Your task to perform on an android device: check the backup settings in the google photos Image 0: 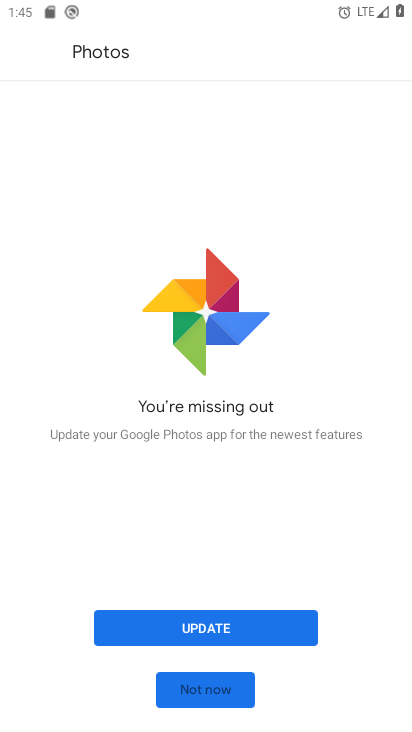
Step 0: click (234, 689)
Your task to perform on an android device: check the backup settings in the google photos Image 1: 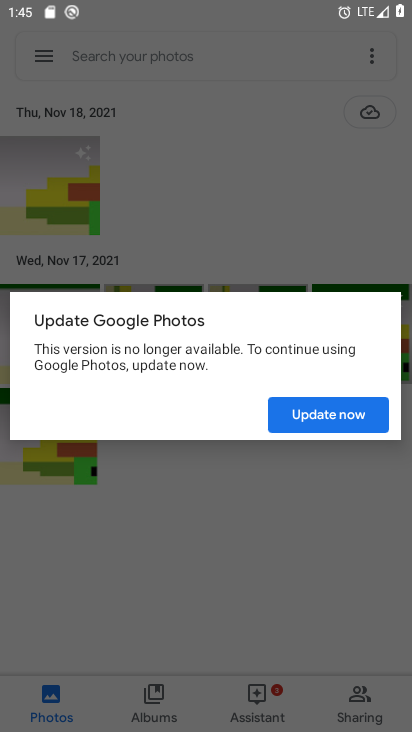
Step 1: click (299, 413)
Your task to perform on an android device: check the backup settings in the google photos Image 2: 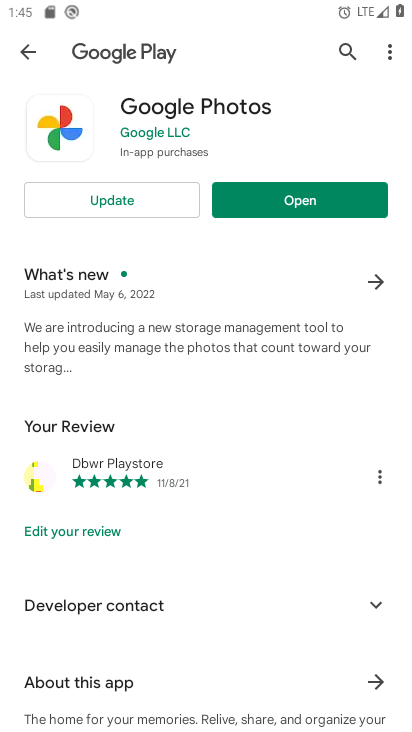
Step 2: click (297, 194)
Your task to perform on an android device: check the backup settings in the google photos Image 3: 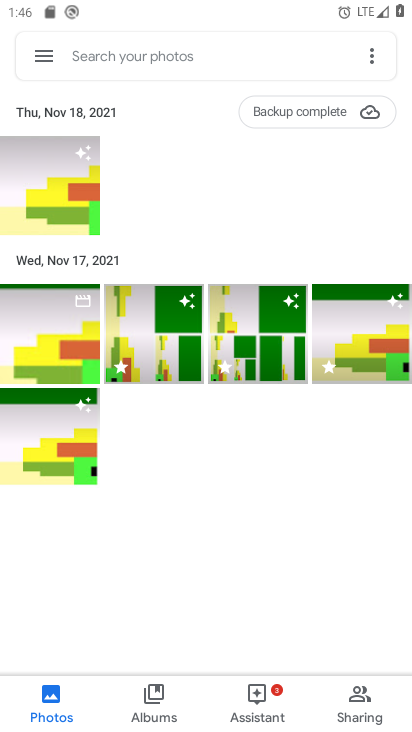
Step 3: click (43, 56)
Your task to perform on an android device: check the backup settings in the google photos Image 4: 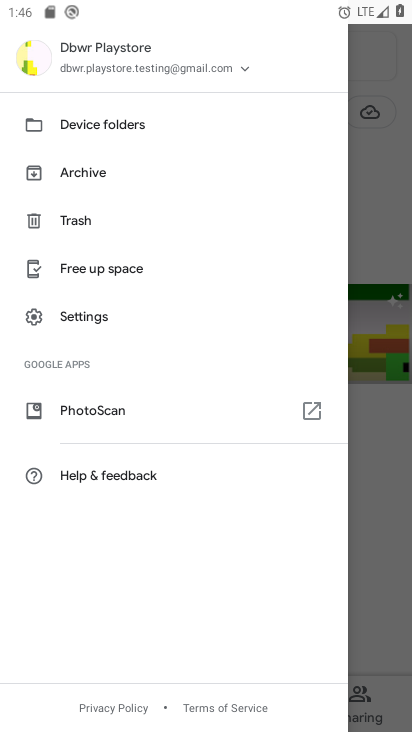
Step 4: click (105, 312)
Your task to perform on an android device: check the backup settings in the google photos Image 5: 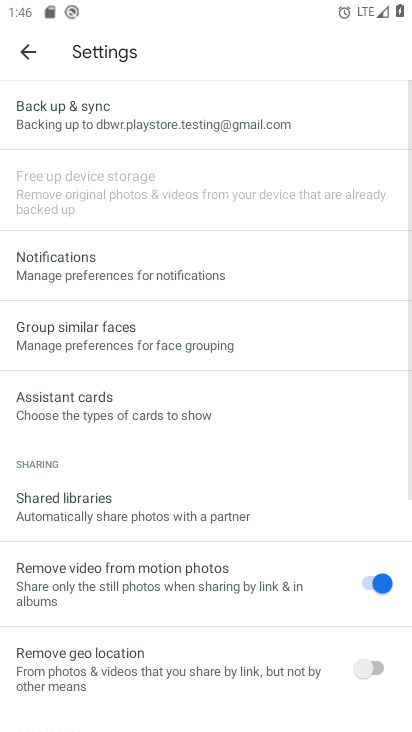
Step 5: click (160, 115)
Your task to perform on an android device: check the backup settings in the google photos Image 6: 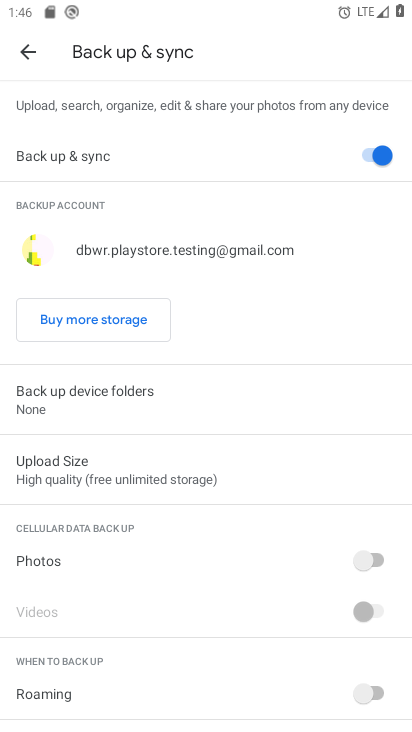
Step 6: task complete